Your task to perform on an android device: Open Google Image 0: 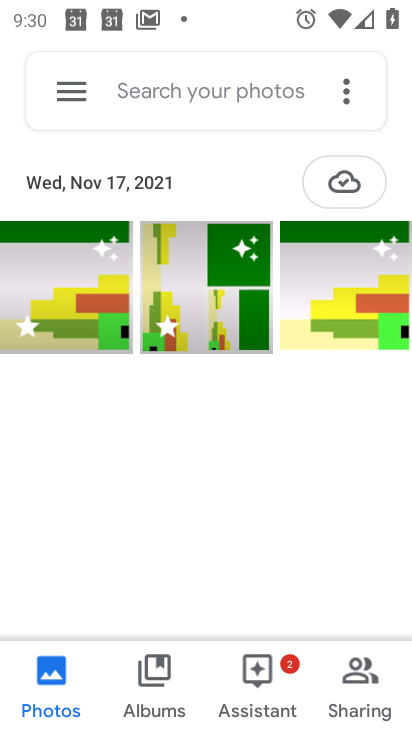
Step 0: press home button
Your task to perform on an android device: Open Google Image 1: 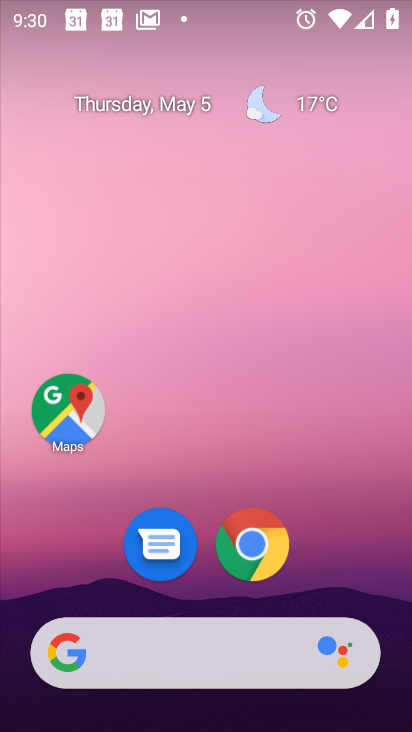
Step 1: click (251, 557)
Your task to perform on an android device: Open Google Image 2: 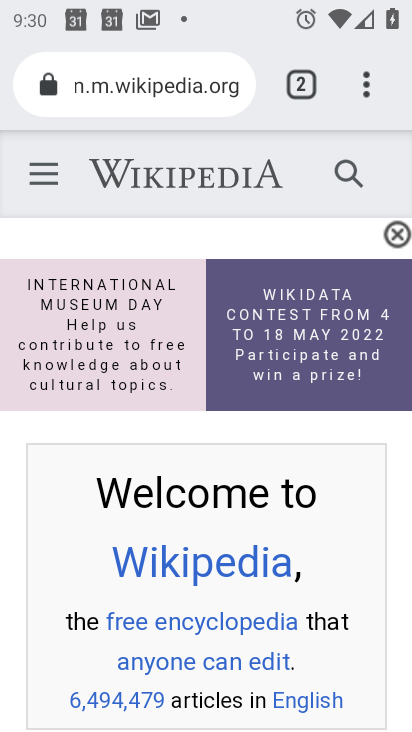
Step 2: click (205, 88)
Your task to perform on an android device: Open Google Image 3: 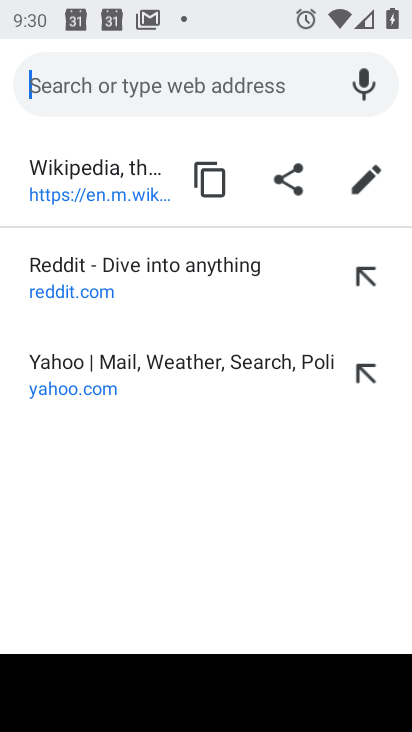
Step 3: type "google.com"
Your task to perform on an android device: Open Google Image 4: 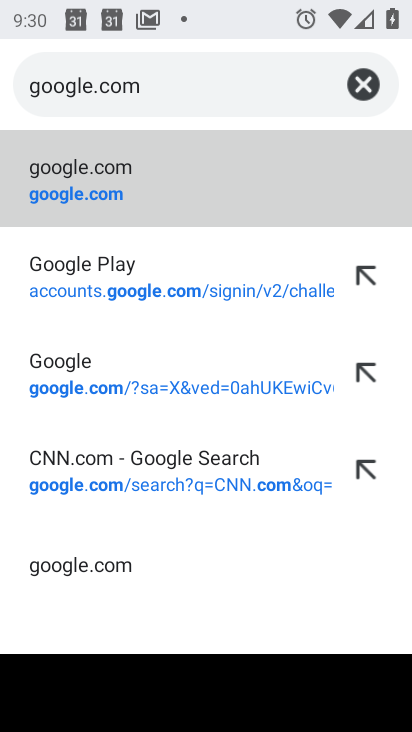
Step 4: click (119, 166)
Your task to perform on an android device: Open Google Image 5: 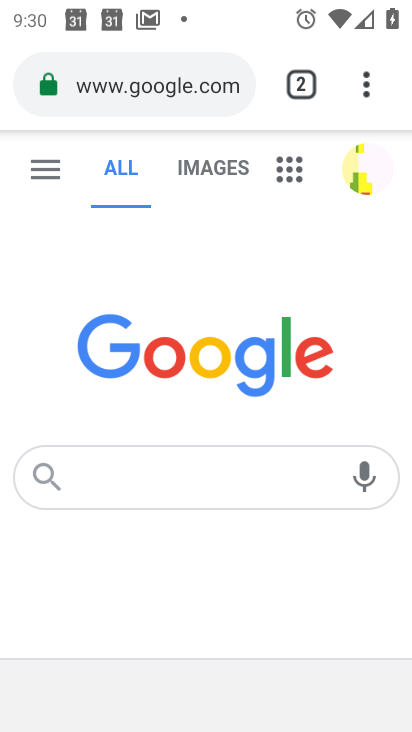
Step 5: task complete